Your task to perform on an android device: check android version Image 0: 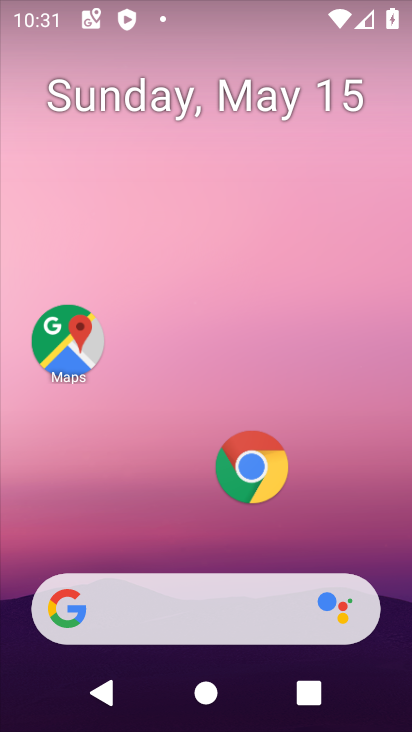
Step 0: drag from (201, 503) to (57, 228)
Your task to perform on an android device: check android version Image 1: 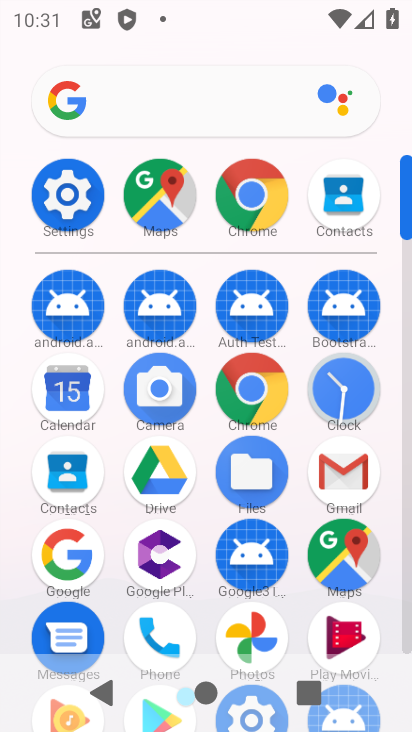
Step 1: drag from (239, 605) to (261, 207)
Your task to perform on an android device: check android version Image 2: 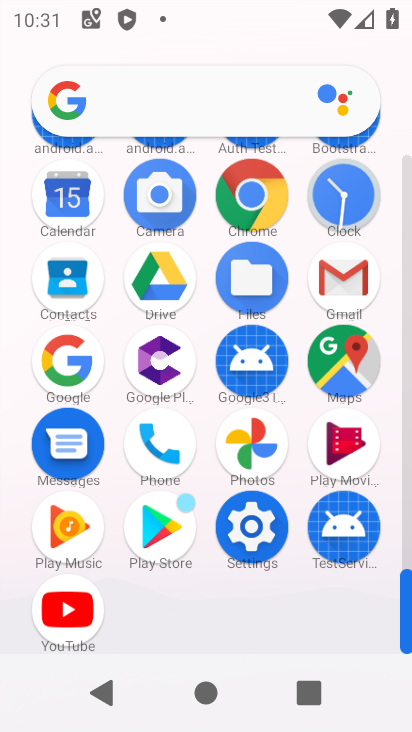
Step 2: click (259, 538)
Your task to perform on an android device: check android version Image 3: 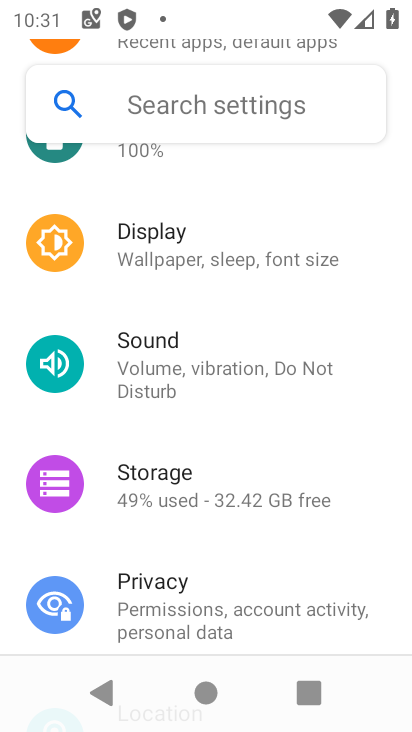
Step 3: drag from (247, 553) to (244, 9)
Your task to perform on an android device: check android version Image 4: 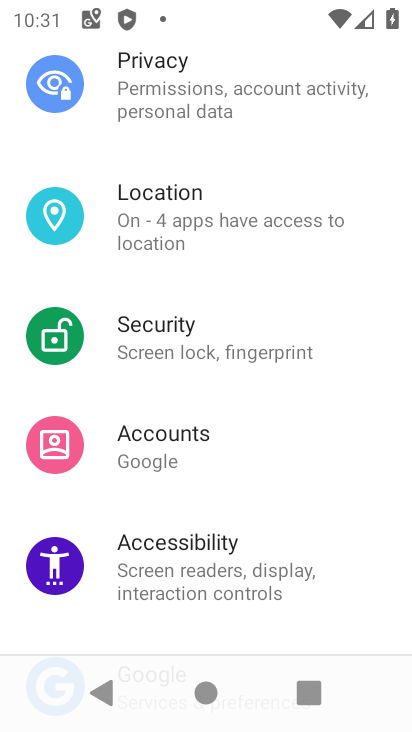
Step 4: drag from (218, 603) to (241, 244)
Your task to perform on an android device: check android version Image 5: 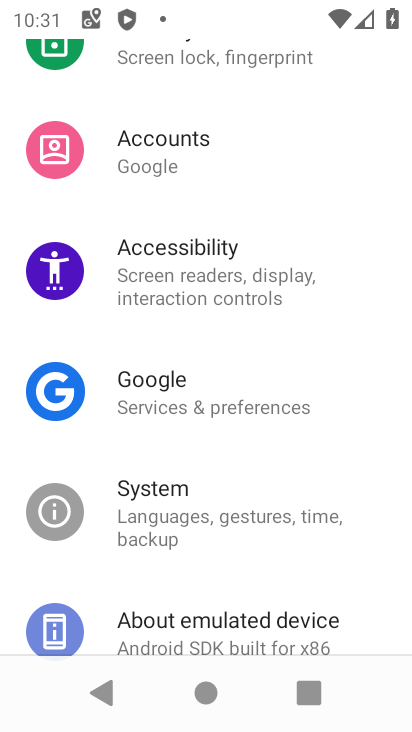
Step 5: drag from (196, 599) to (183, 265)
Your task to perform on an android device: check android version Image 6: 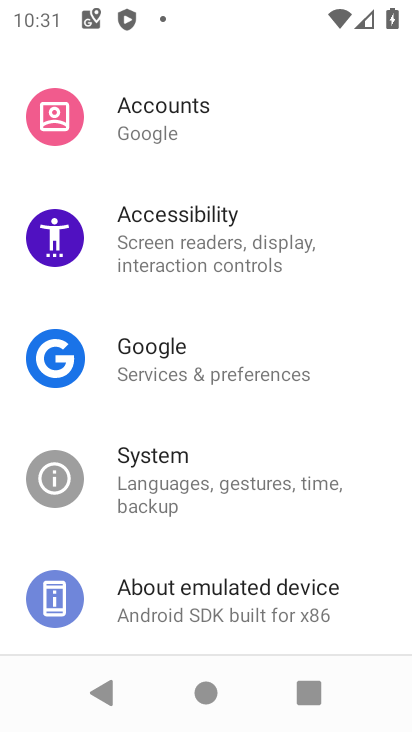
Step 6: click (254, 604)
Your task to perform on an android device: check android version Image 7: 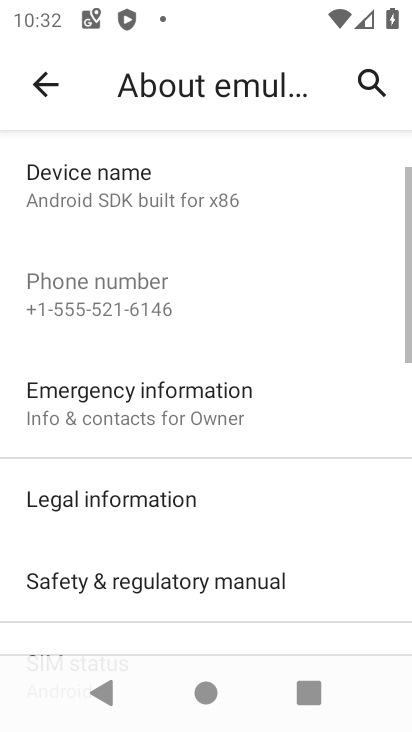
Step 7: drag from (168, 558) to (157, 67)
Your task to perform on an android device: check android version Image 8: 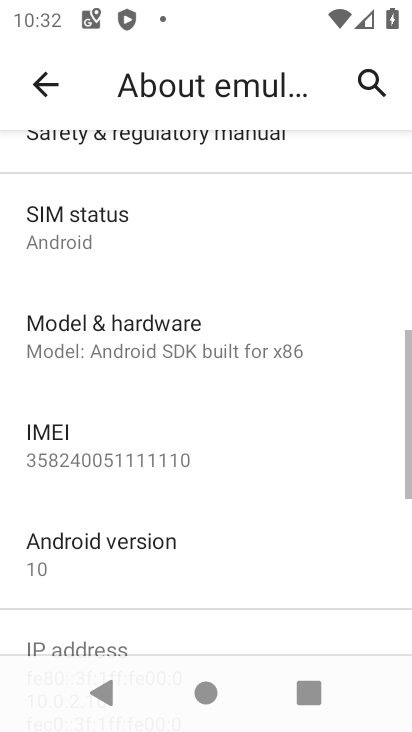
Step 8: click (206, 564)
Your task to perform on an android device: check android version Image 9: 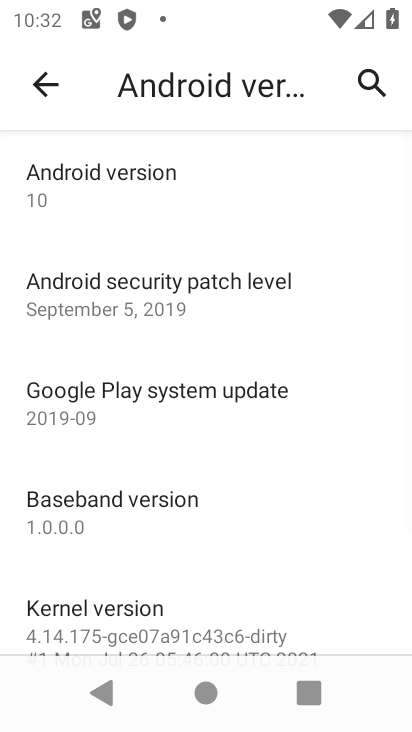
Step 9: click (124, 224)
Your task to perform on an android device: check android version Image 10: 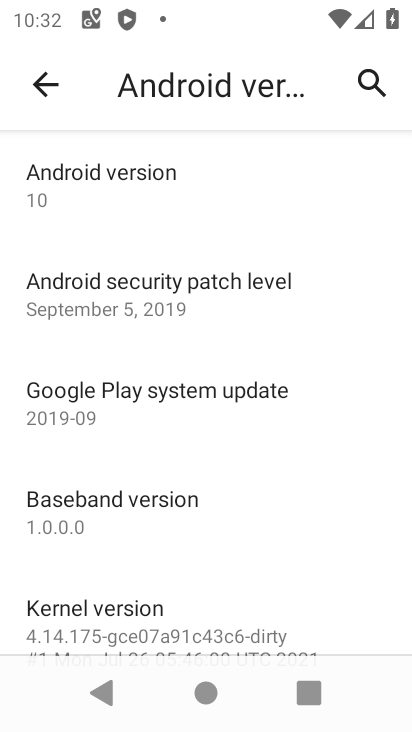
Step 10: task complete